Your task to perform on an android device: Do I have any events today? Image 0: 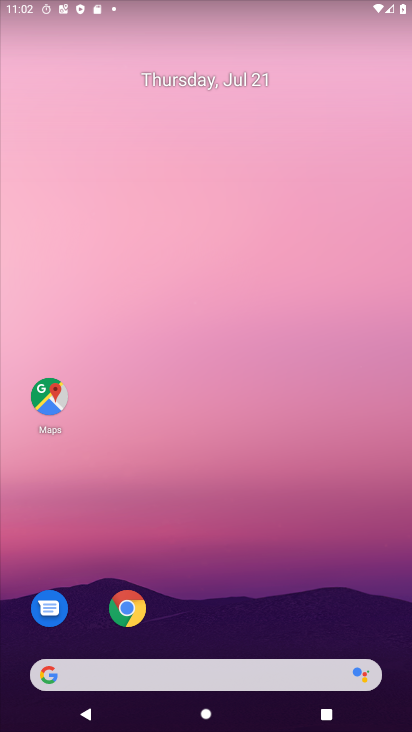
Step 0: drag from (186, 325) to (197, 233)
Your task to perform on an android device: Do I have any events today? Image 1: 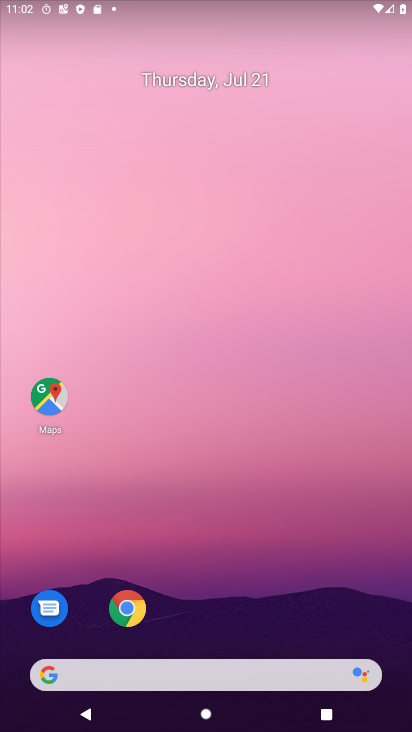
Step 1: drag from (192, 476) to (237, 85)
Your task to perform on an android device: Do I have any events today? Image 2: 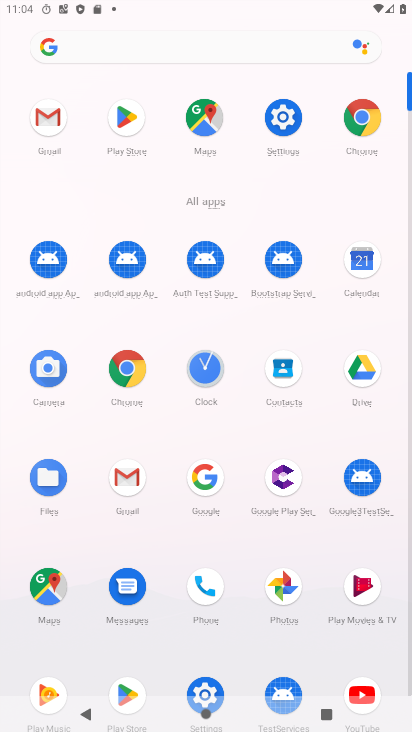
Step 2: click (354, 270)
Your task to perform on an android device: Do I have any events today? Image 3: 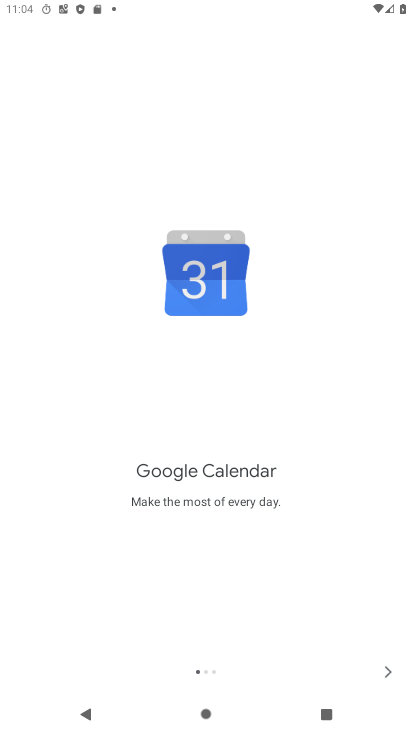
Step 3: click (388, 678)
Your task to perform on an android device: Do I have any events today? Image 4: 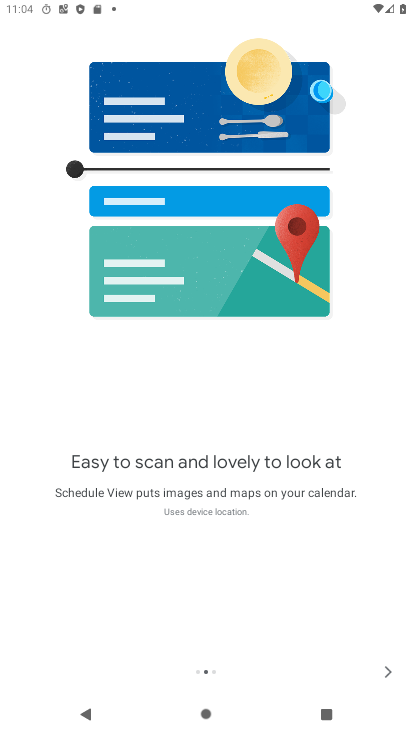
Step 4: click (388, 678)
Your task to perform on an android device: Do I have any events today? Image 5: 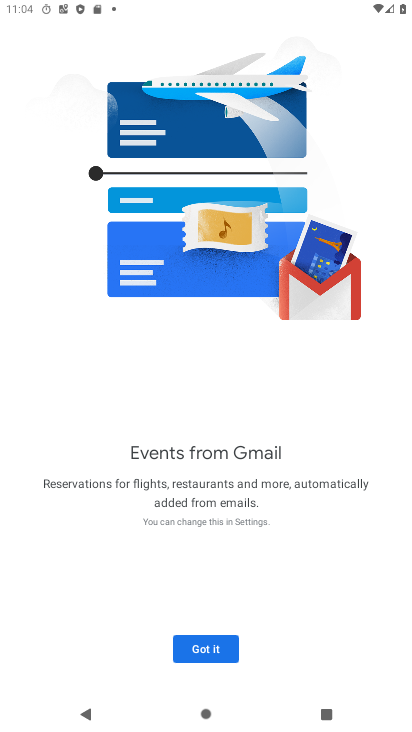
Step 5: click (193, 640)
Your task to perform on an android device: Do I have any events today? Image 6: 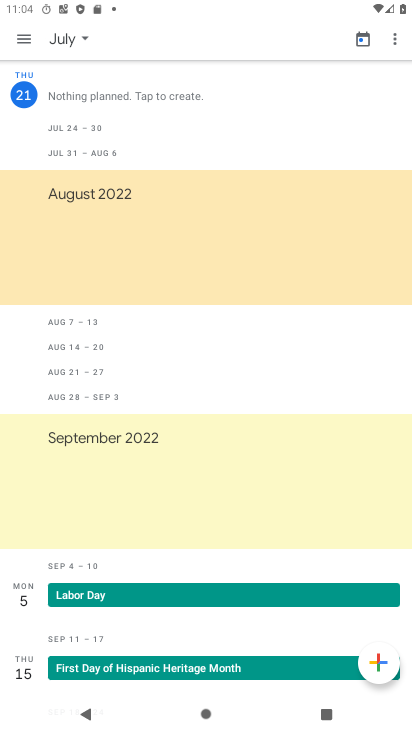
Step 6: task complete